Your task to perform on an android device: turn on sleep mode Image 0: 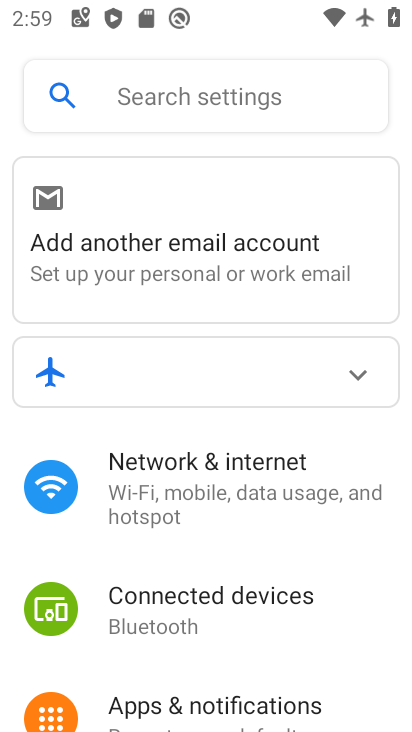
Step 0: press home button
Your task to perform on an android device: turn on sleep mode Image 1: 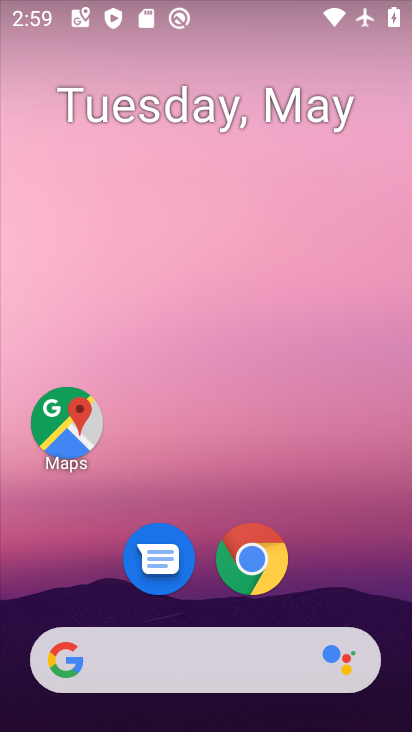
Step 1: drag from (188, 663) to (295, 110)
Your task to perform on an android device: turn on sleep mode Image 2: 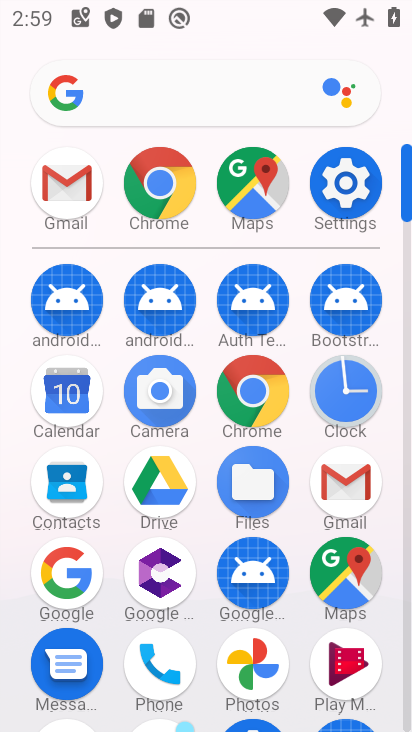
Step 2: click (340, 197)
Your task to perform on an android device: turn on sleep mode Image 3: 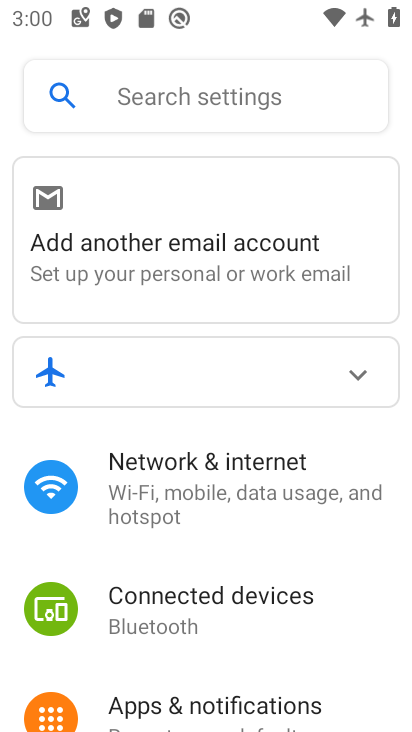
Step 3: drag from (175, 658) to (330, 225)
Your task to perform on an android device: turn on sleep mode Image 4: 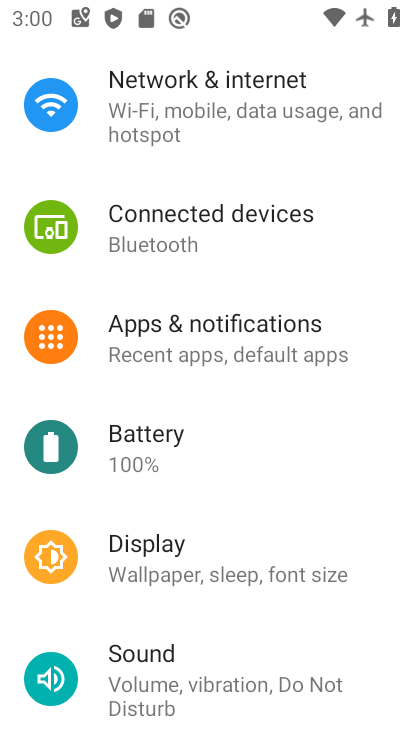
Step 4: click (191, 566)
Your task to perform on an android device: turn on sleep mode Image 5: 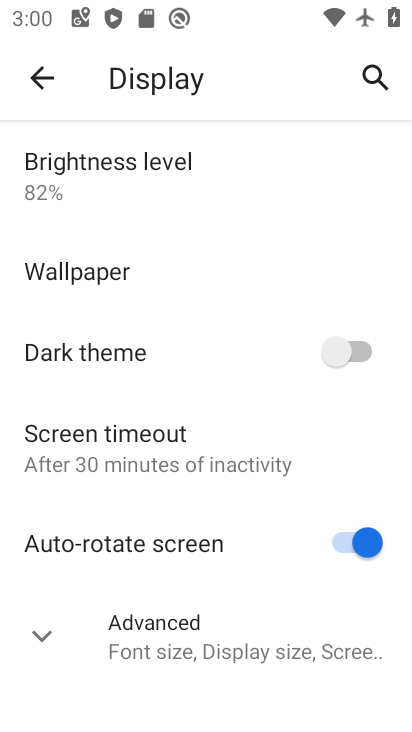
Step 5: task complete